Your task to perform on an android device: check android version Image 0: 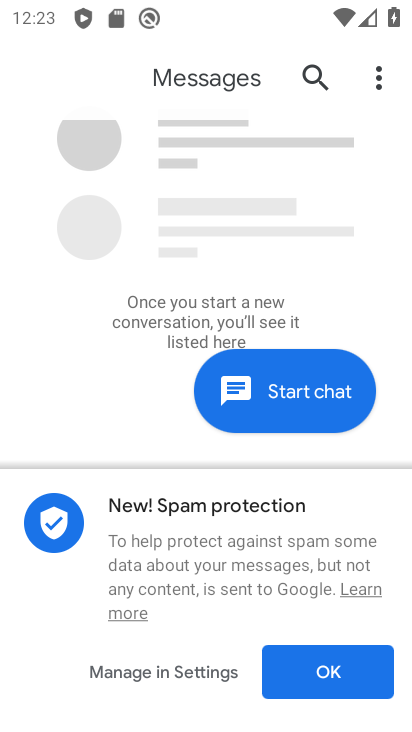
Step 0: press back button
Your task to perform on an android device: check android version Image 1: 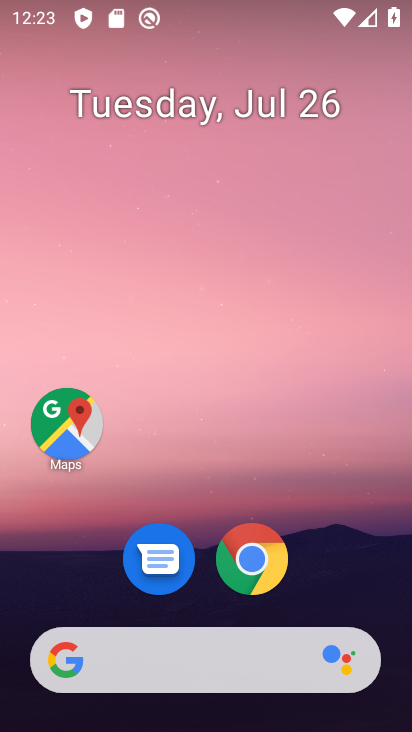
Step 1: drag from (58, 586) to (228, 8)
Your task to perform on an android device: check android version Image 2: 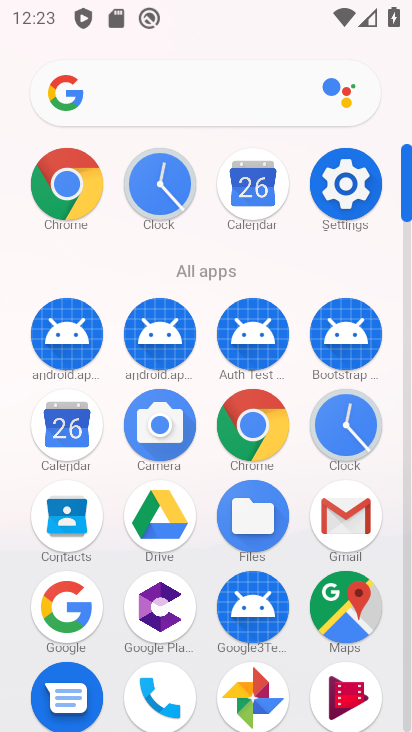
Step 2: click (346, 176)
Your task to perform on an android device: check android version Image 3: 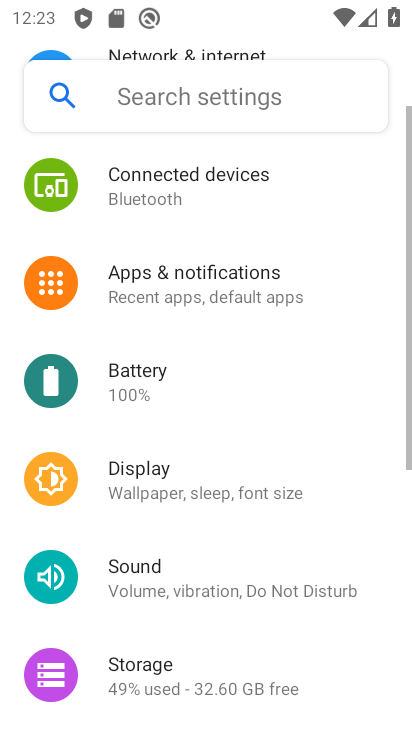
Step 3: drag from (155, 649) to (225, 51)
Your task to perform on an android device: check android version Image 4: 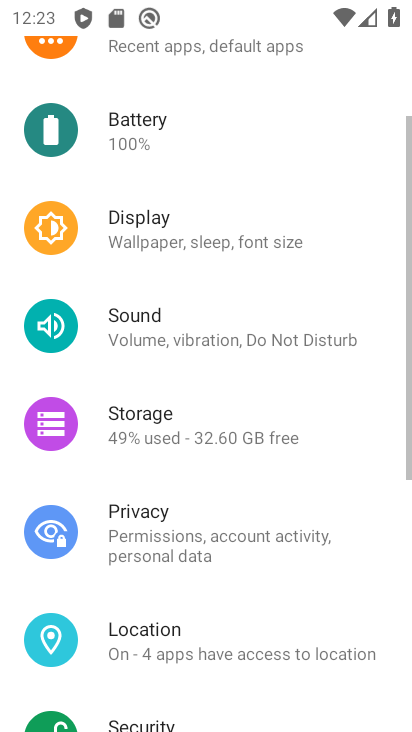
Step 4: drag from (208, 652) to (286, 15)
Your task to perform on an android device: check android version Image 5: 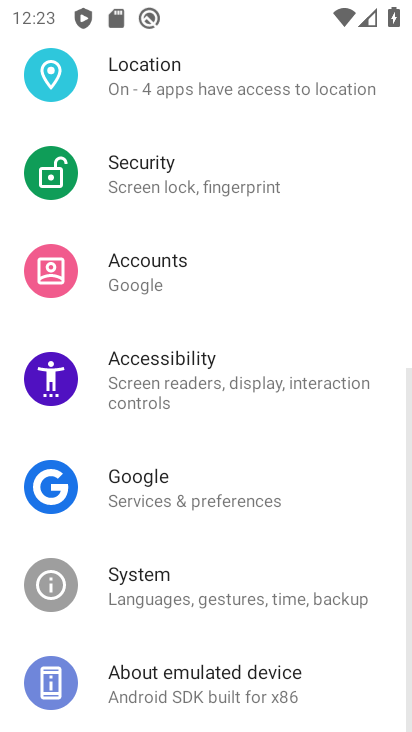
Step 5: drag from (147, 665) to (300, 22)
Your task to perform on an android device: check android version Image 6: 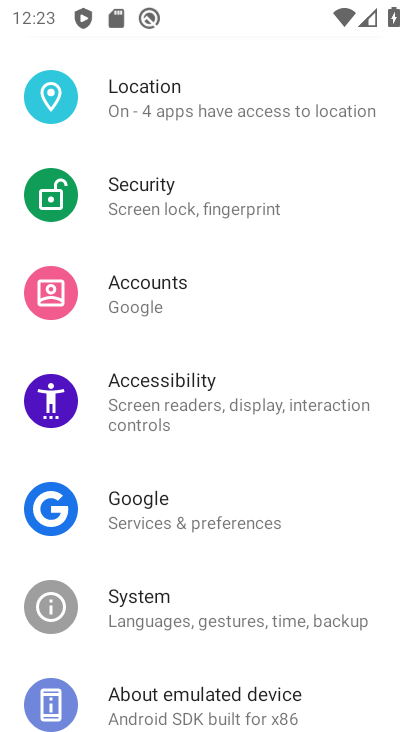
Step 6: drag from (206, 697) to (300, 96)
Your task to perform on an android device: check android version Image 7: 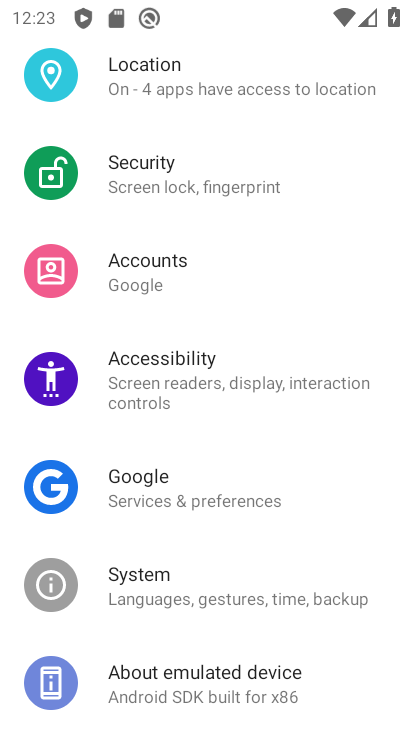
Step 7: click (184, 674)
Your task to perform on an android device: check android version Image 8: 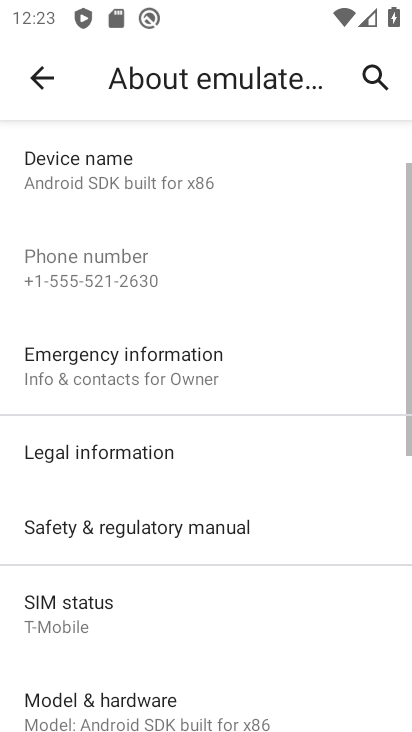
Step 8: drag from (254, 691) to (226, 730)
Your task to perform on an android device: check android version Image 9: 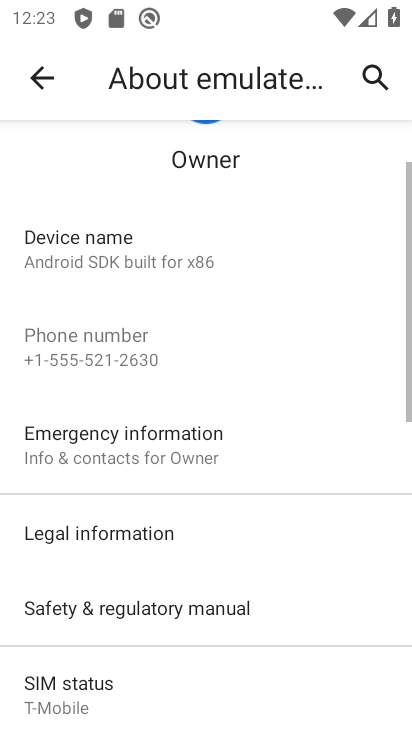
Step 9: drag from (213, 623) to (283, 246)
Your task to perform on an android device: check android version Image 10: 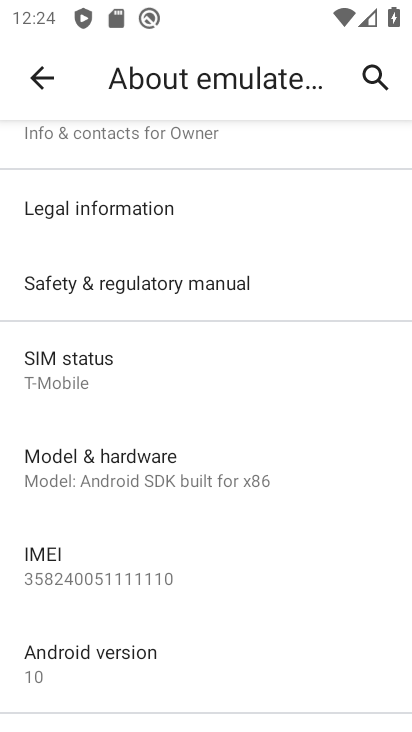
Step 10: click (89, 651)
Your task to perform on an android device: check android version Image 11: 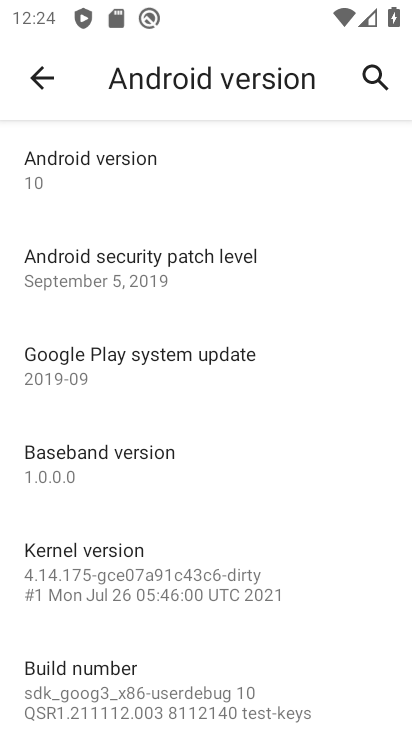
Step 11: click (126, 179)
Your task to perform on an android device: check android version Image 12: 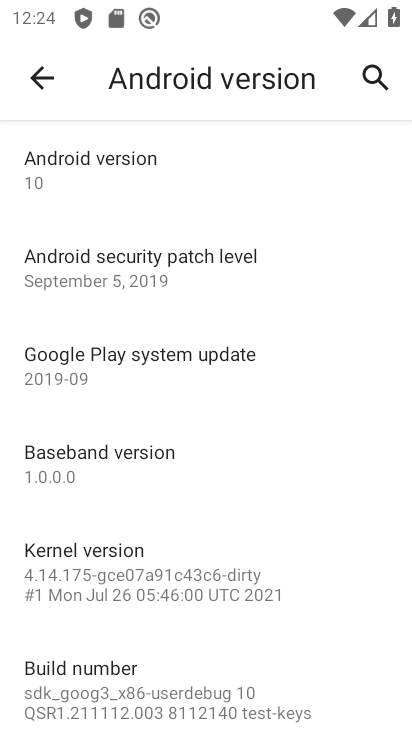
Step 12: task complete